Your task to perform on an android device: Go to calendar. Show me events next week Image 0: 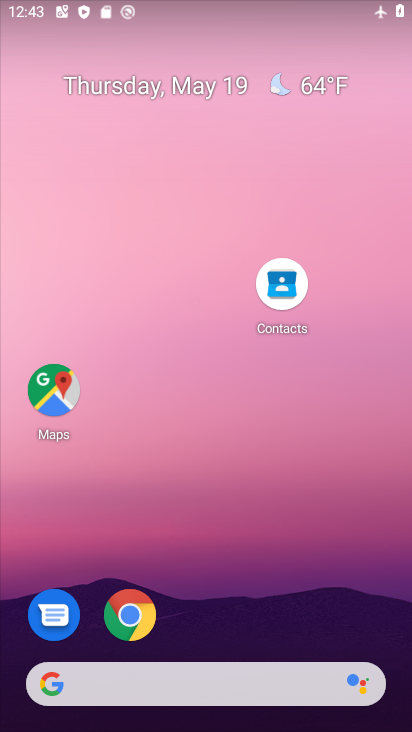
Step 0: drag from (243, 673) to (266, 314)
Your task to perform on an android device: Go to calendar. Show me events next week Image 1: 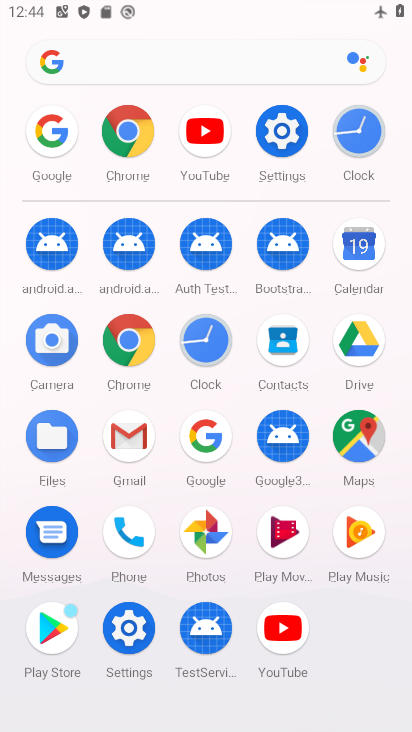
Step 1: click (374, 255)
Your task to perform on an android device: Go to calendar. Show me events next week Image 2: 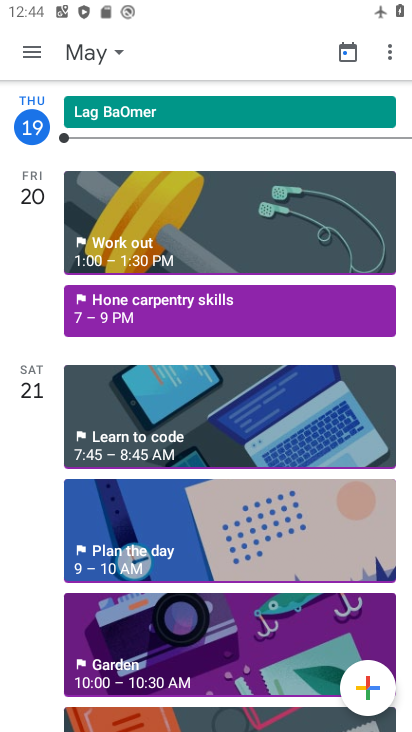
Step 2: click (99, 54)
Your task to perform on an android device: Go to calendar. Show me events next week Image 3: 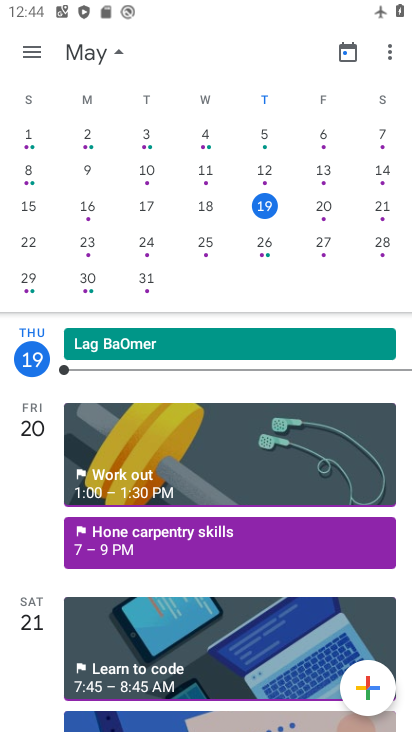
Step 3: click (27, 243)
Your task to perform on an android device: Go to calendar. Show me events next week Image 4: 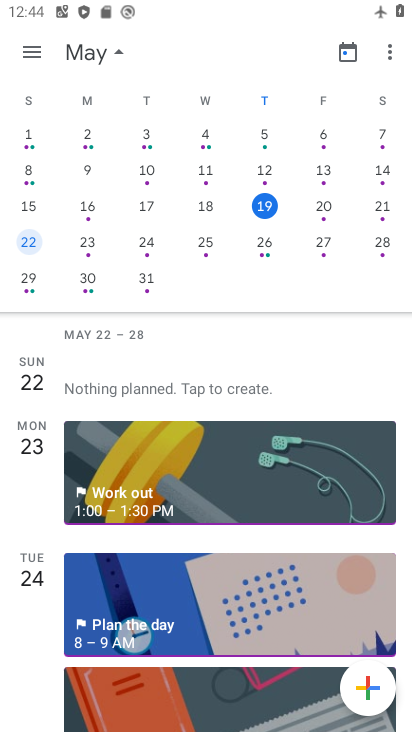
Step 4: task complete